Your task to perform on an android device: Add "asus rog" to the cart on ebay.com, then select checkout. Image 0: 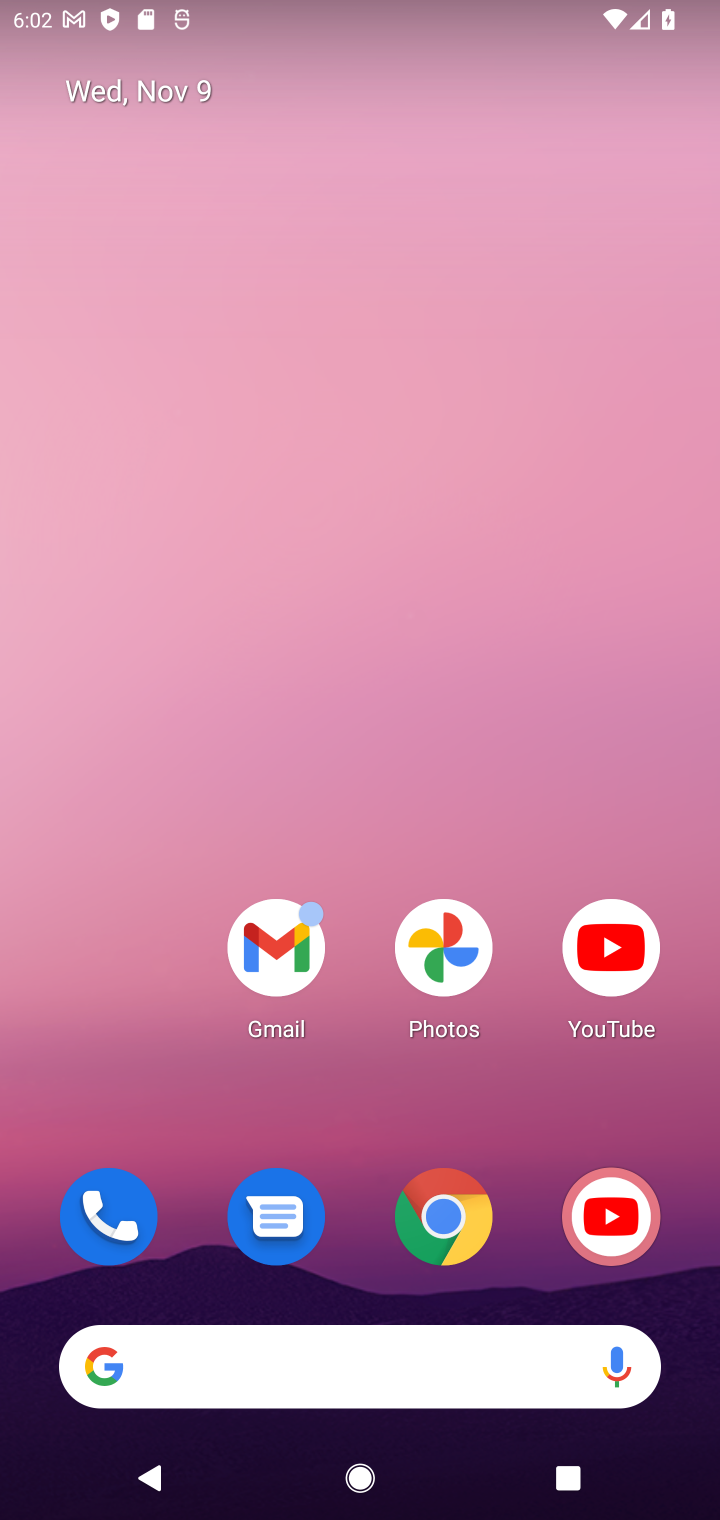
Step 0: drag from (357, 1119) to (319, 232)
Your task to perform on an android device: Add "asus rog" to the cart on ebay.com, then select checkout. Image 1: 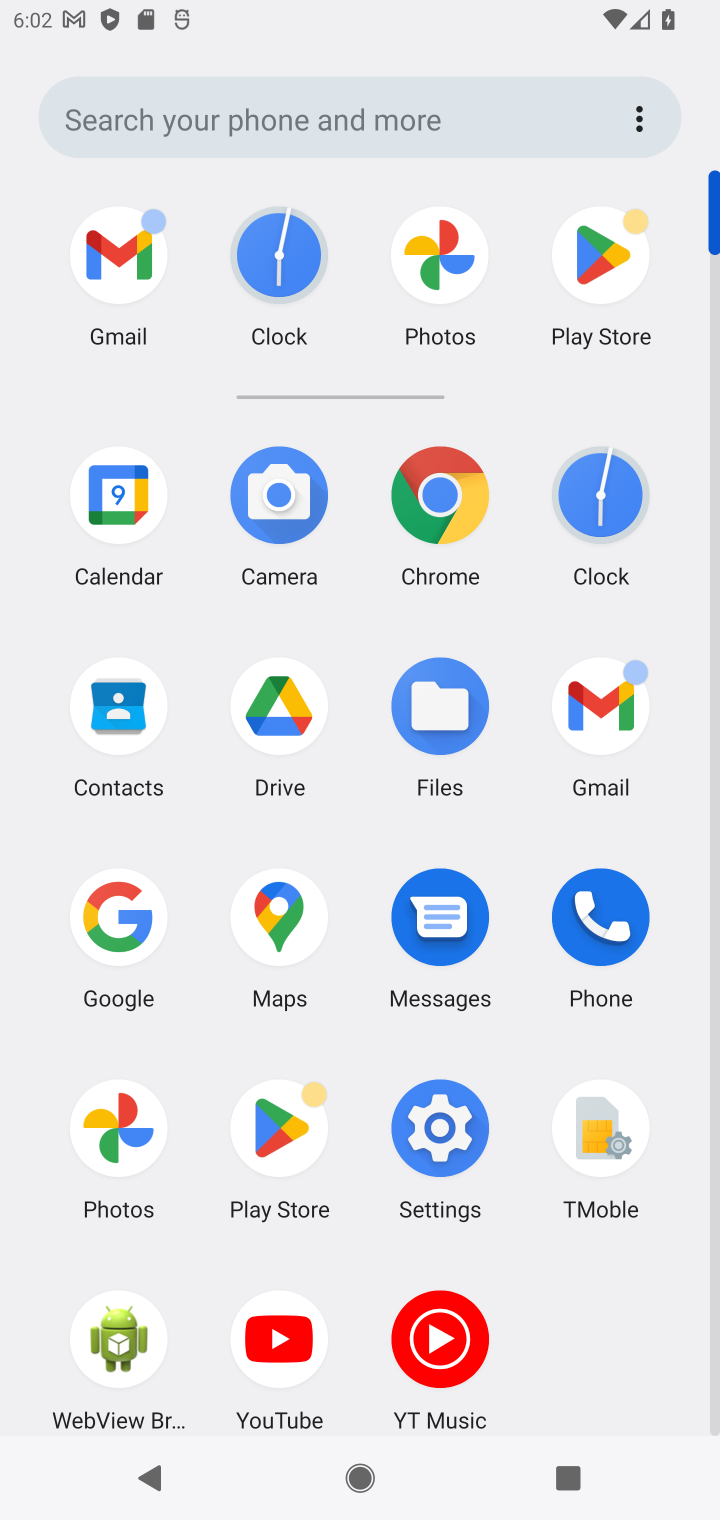
Step 1: click (429, 500)
Your task to perform on an android device: Add "asus rog" to the cart on ebay.com, then select checkout. Image 2: 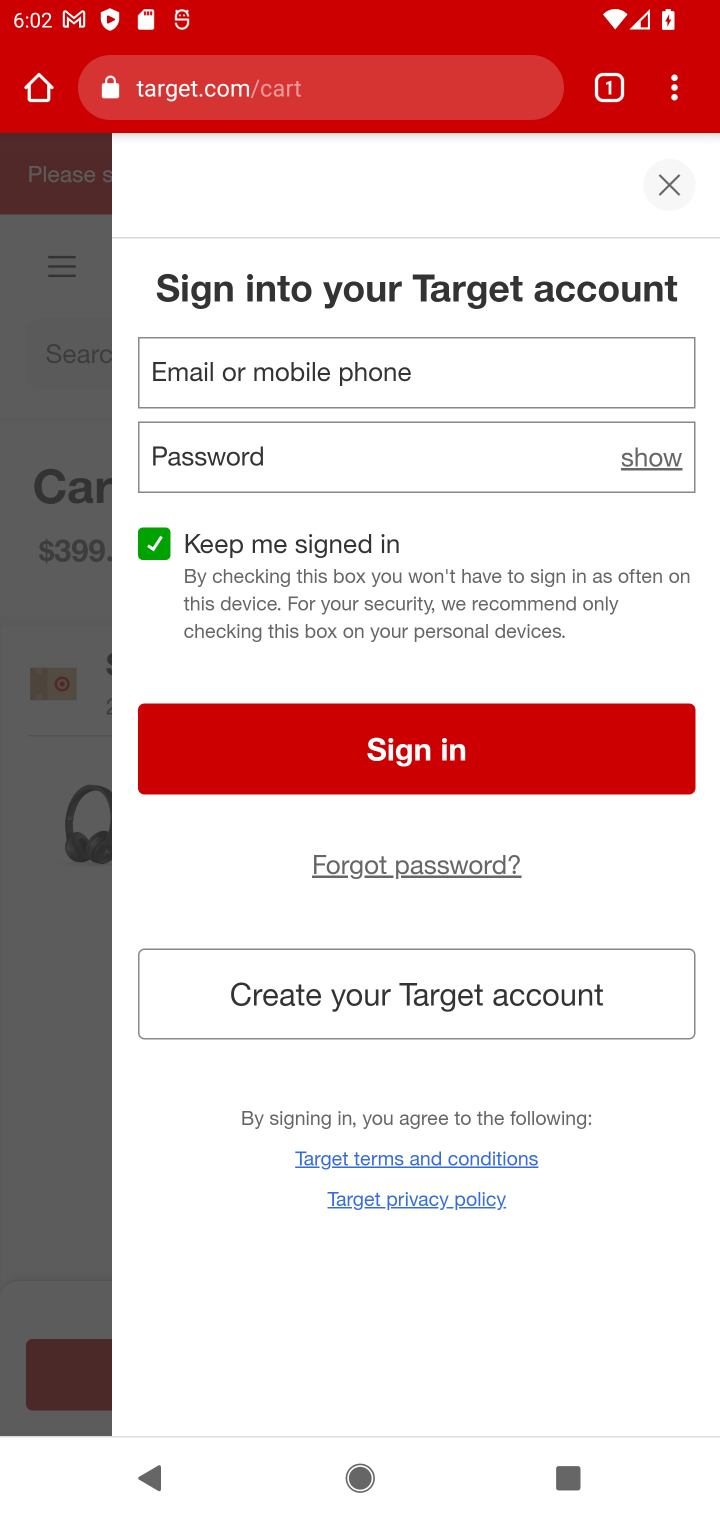
Step 2: click (358, 103)
Your task to perform on an android device: Add "asus rog" to the cart on ebay.com, then select checkout. Image 3: 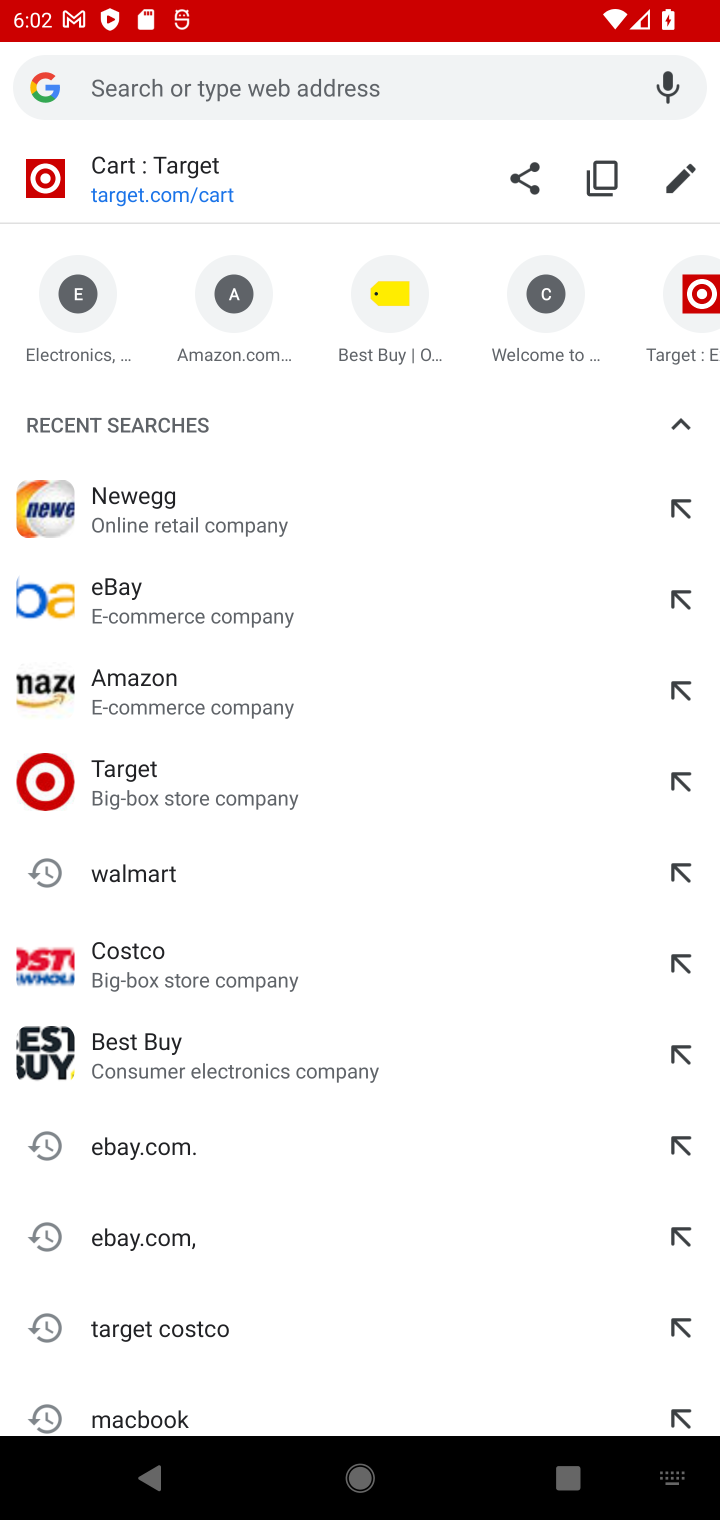
Step 3: type "ebay.com"
Your task to perform on an android device: Add "asus rog" to the cart on ebay.com, then select checkout. Image 4: 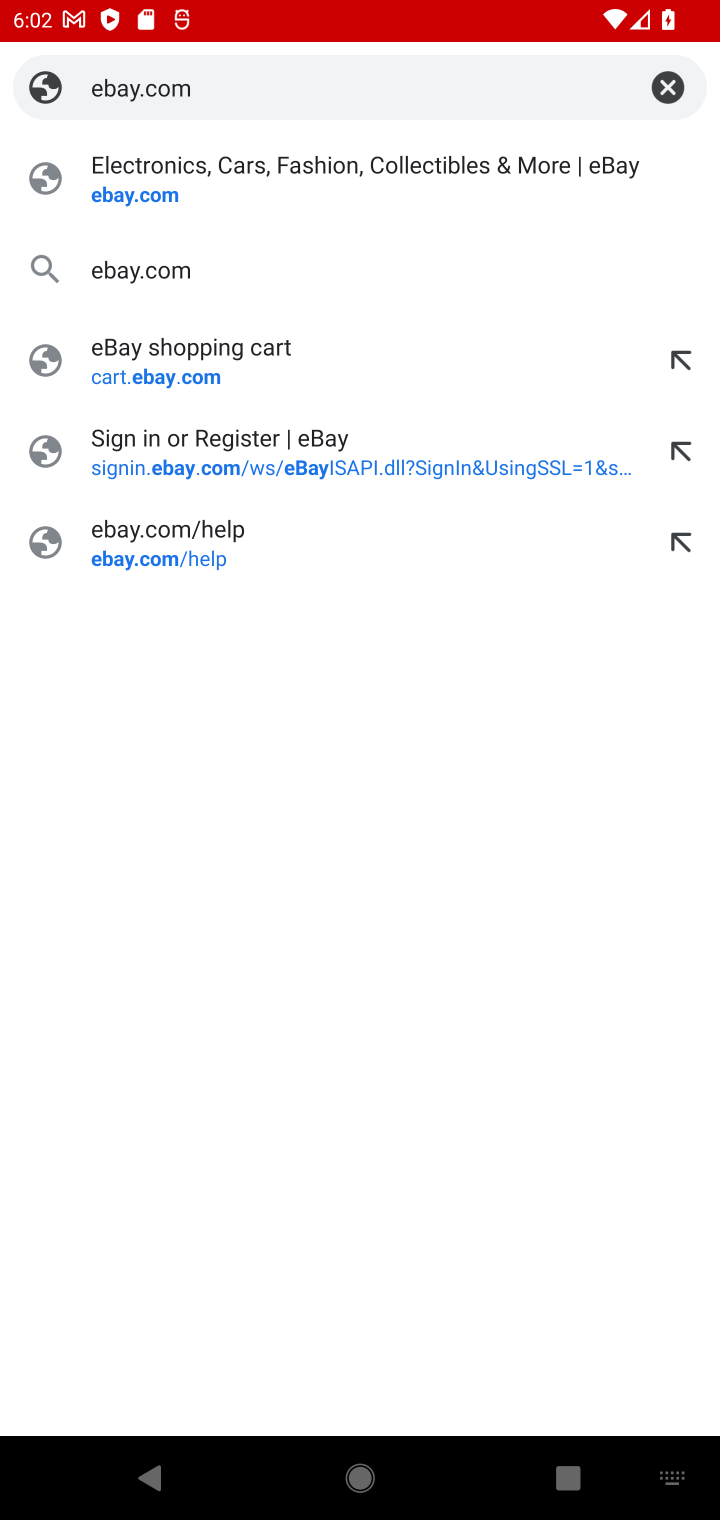
Step 4: press enter
Your task to perform on an android device: Add "asus rog" to the cart on ebay.com, then select checkout. Image 5: 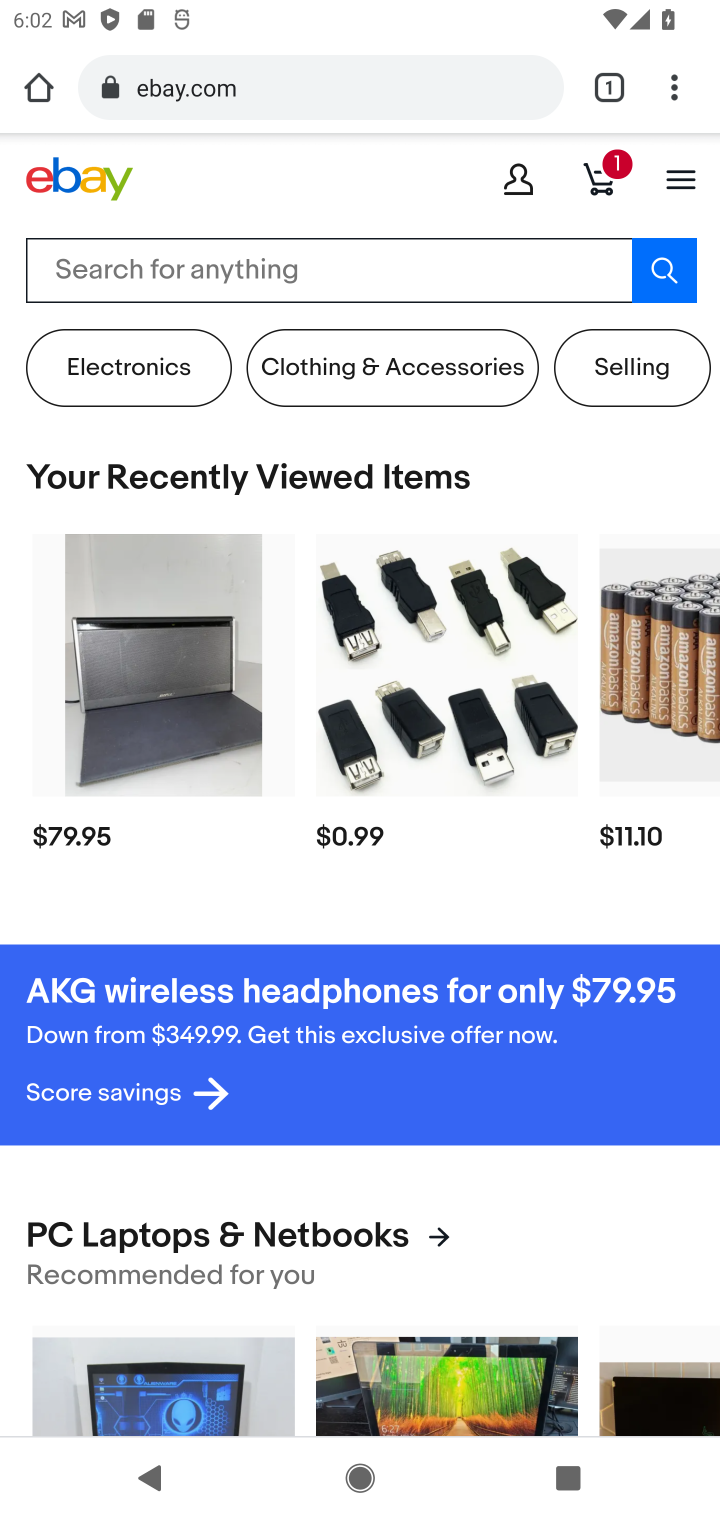
Step 5: click (372, 265)
Your task to perform on an android device: Add "asus rog" to the cart on ebay.com, then select checkout. Image 6: 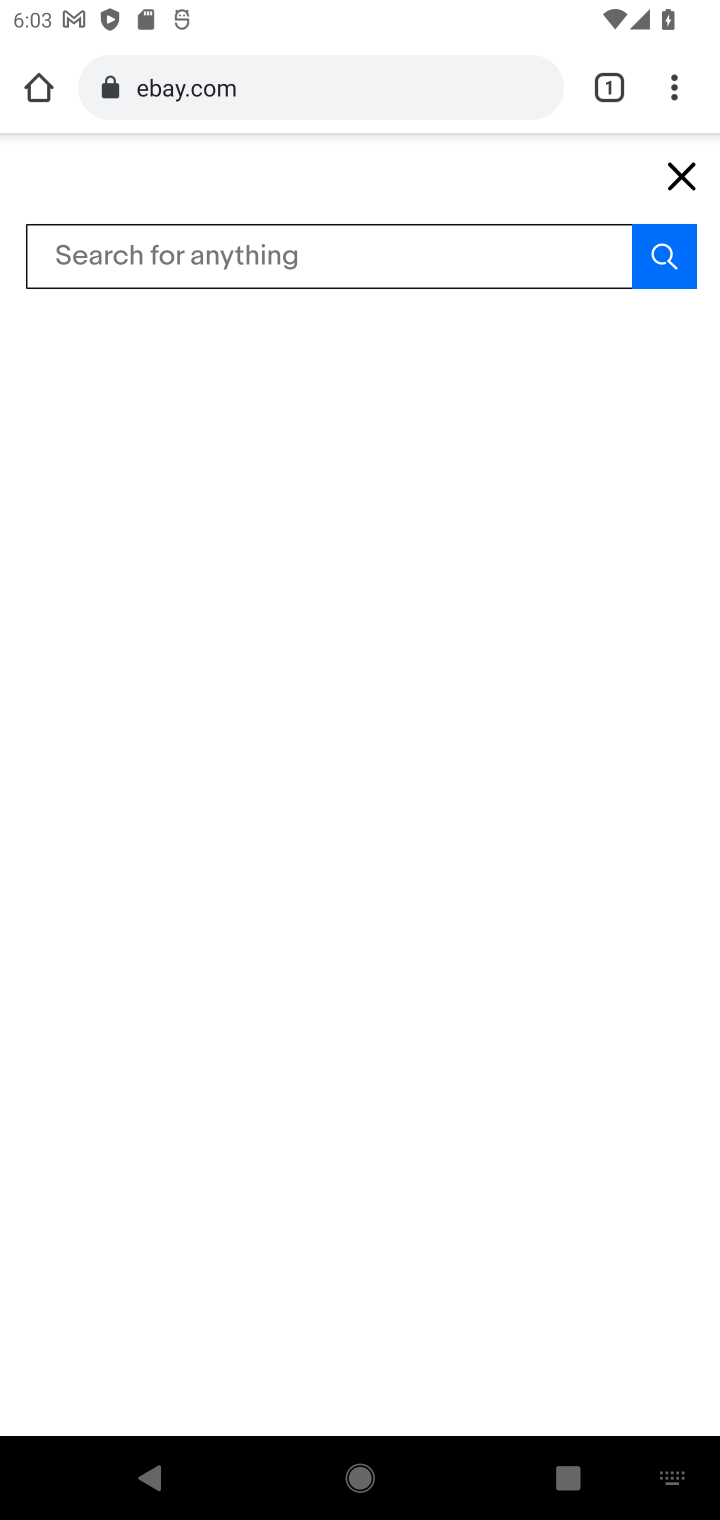
Step 6: type "asus rog"
Your task to perform on an android device: Add "asus rog" to the cart on ebay.com, then select checkout. Image 7: 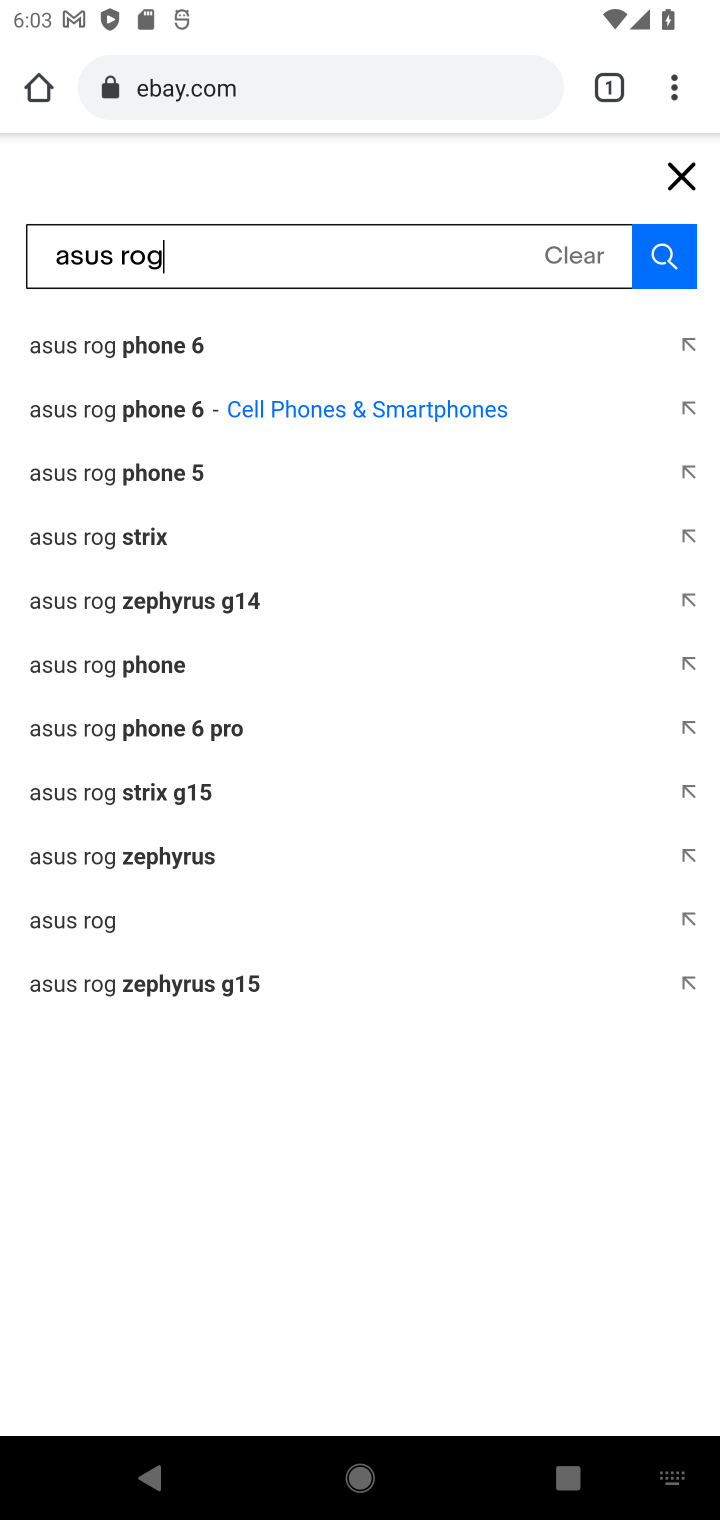
Step 7: press enter
Your task to perform on an android device: Add "asus rog" to the cart on ebay.com, then select checkout. Image 8: 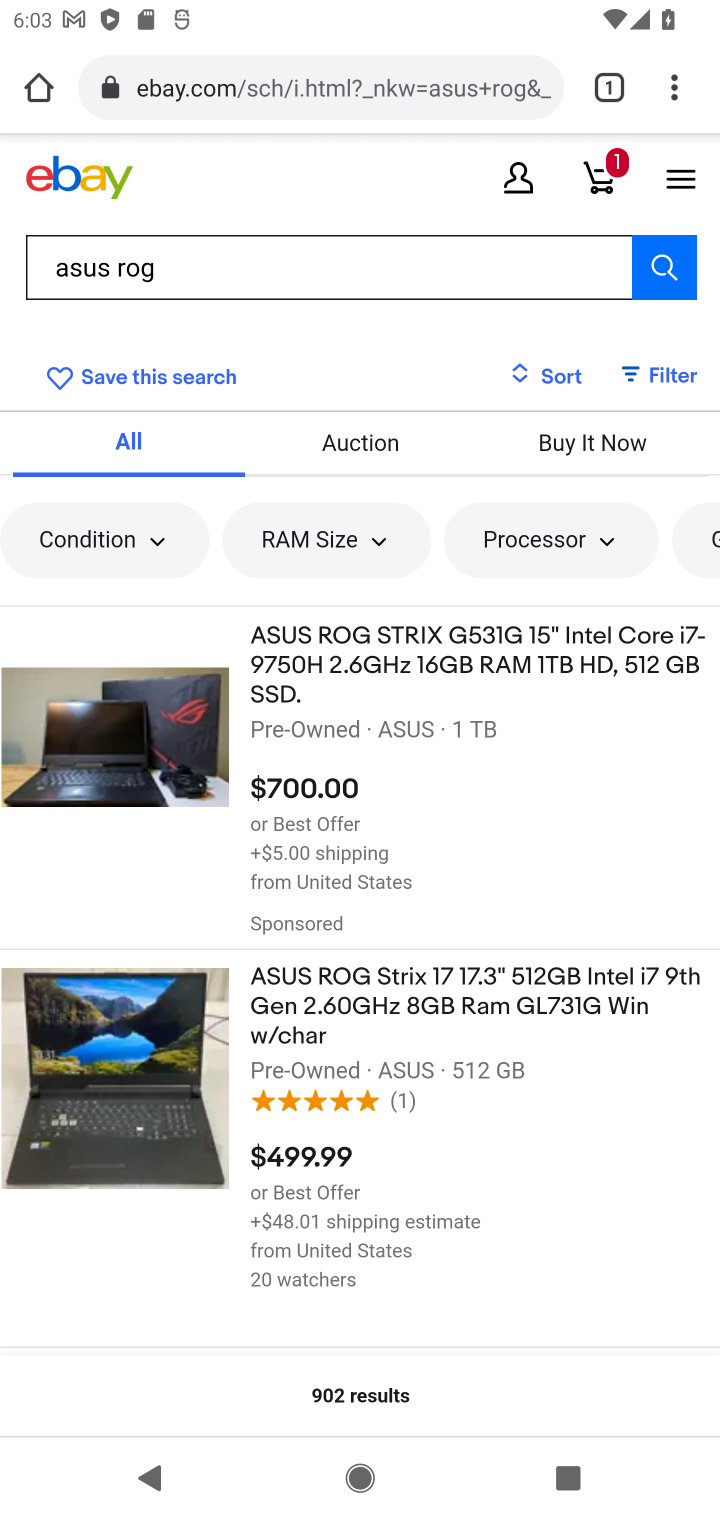
Step 8: click (194, 693)
Your task to perform on an android device: Add "asus rog" to the cart on ebay.com, then select checkout. Image 9: 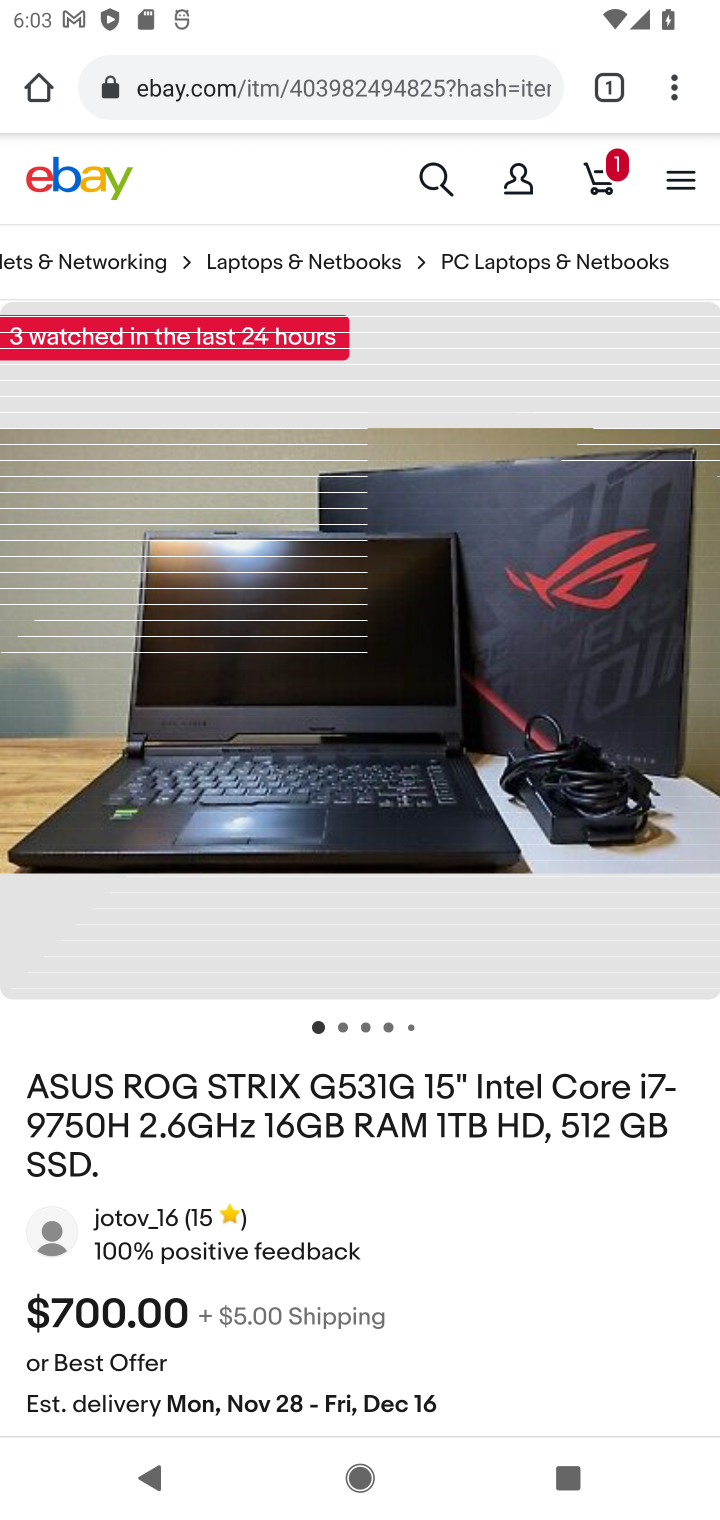
Step 9: drag from (382, 971) to (443, 413)
Your task to perform on an android device: Add "asus rog" to the cart on ebay.com, then select checkout. Image 10: 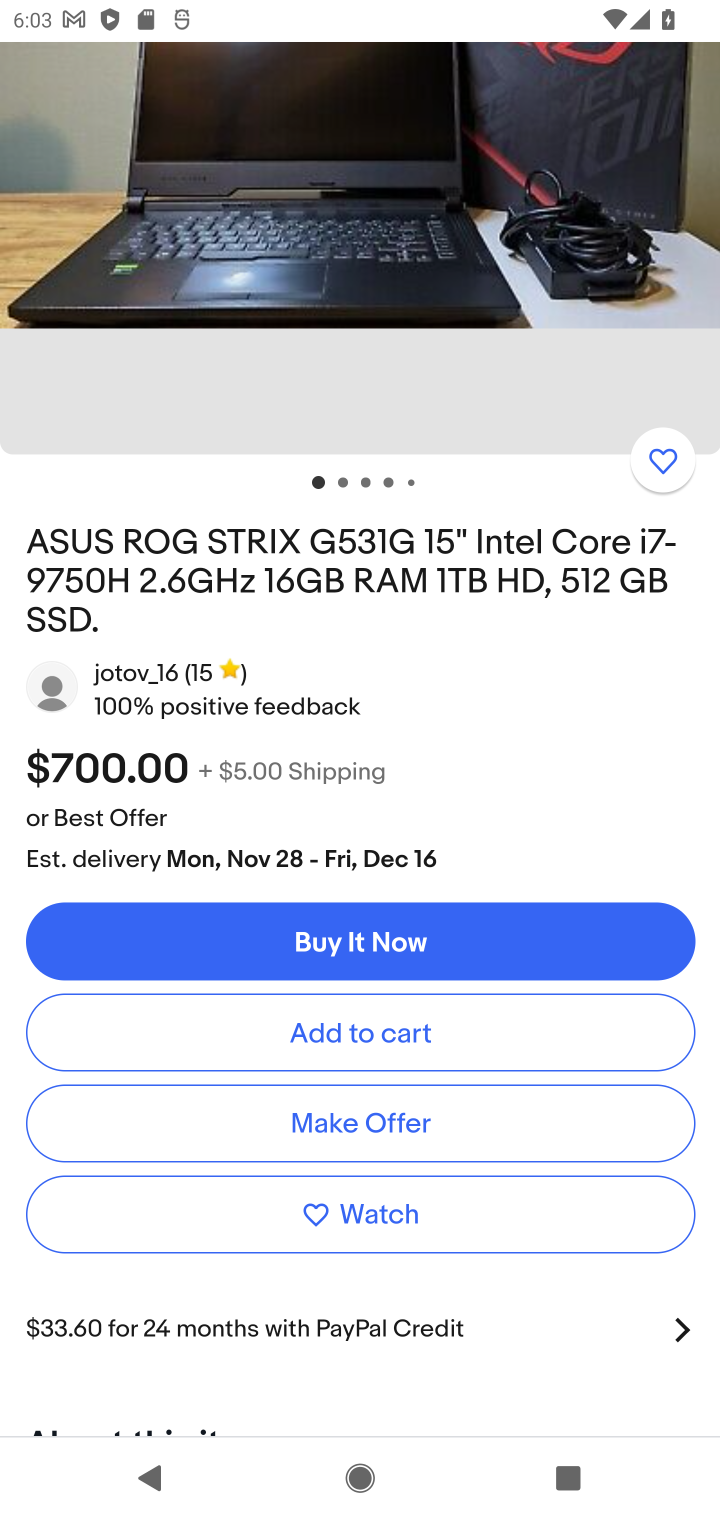
Step 10: click (494, 1025)
Your task to perform on an android device: Add "asus rog" to the cart on ebay.com, then select checkout. Image 11: 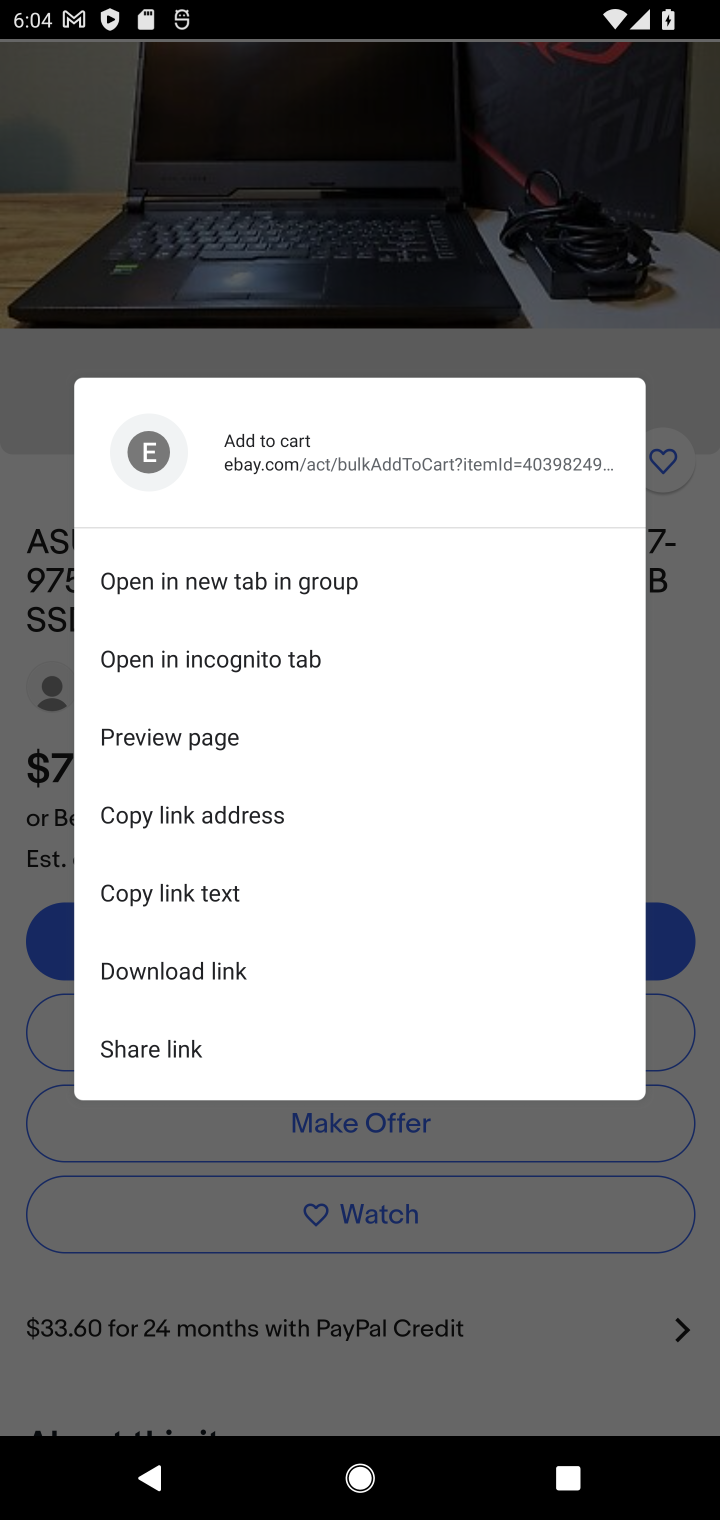
Step 11: click (475, 1152)
Your task to perform on an android device: Add "asus rog" to the cart on ebay.com, then select checkout. Image 12: 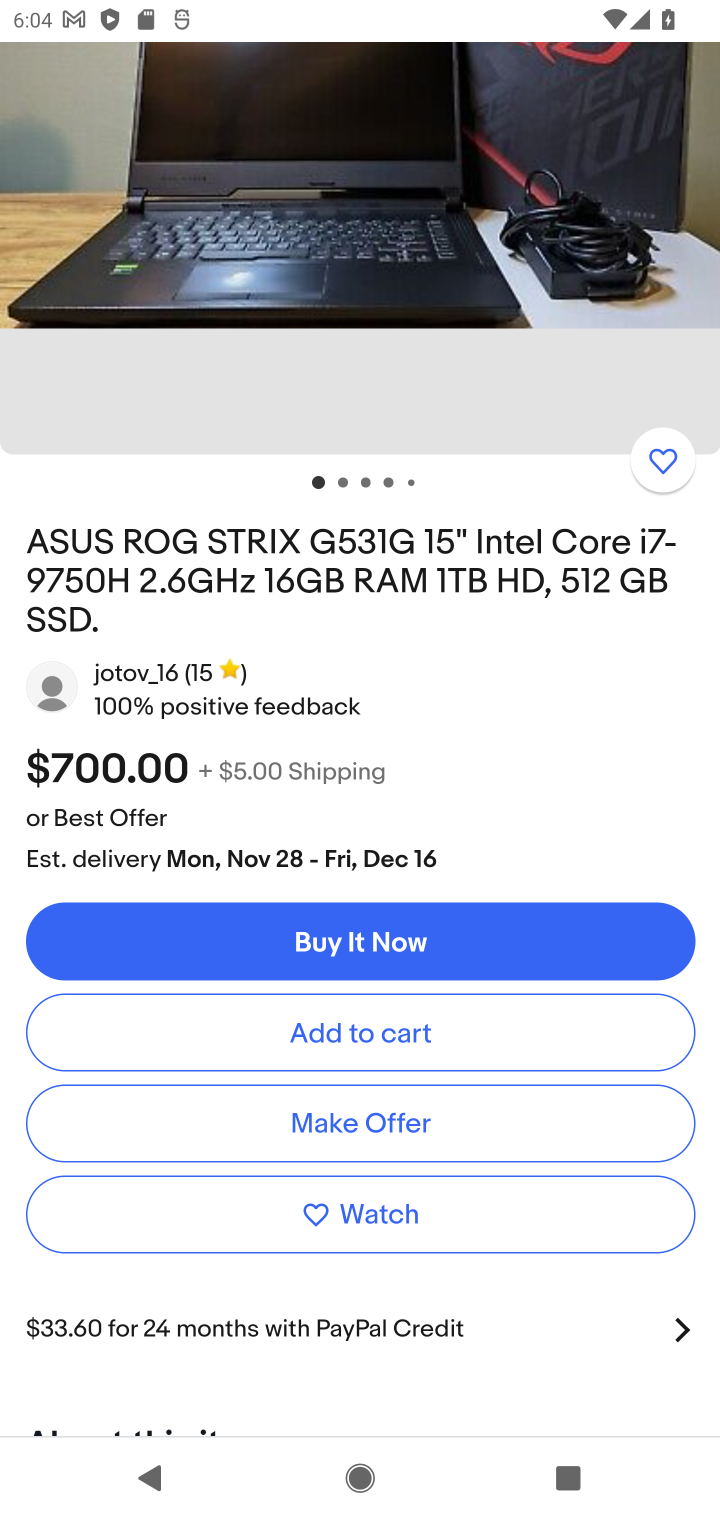
Step 12: click (472, 1031)
Your task to perform on an android device: Add "asus rog" to the cart on ebay.com, then select checkout. Image 13: 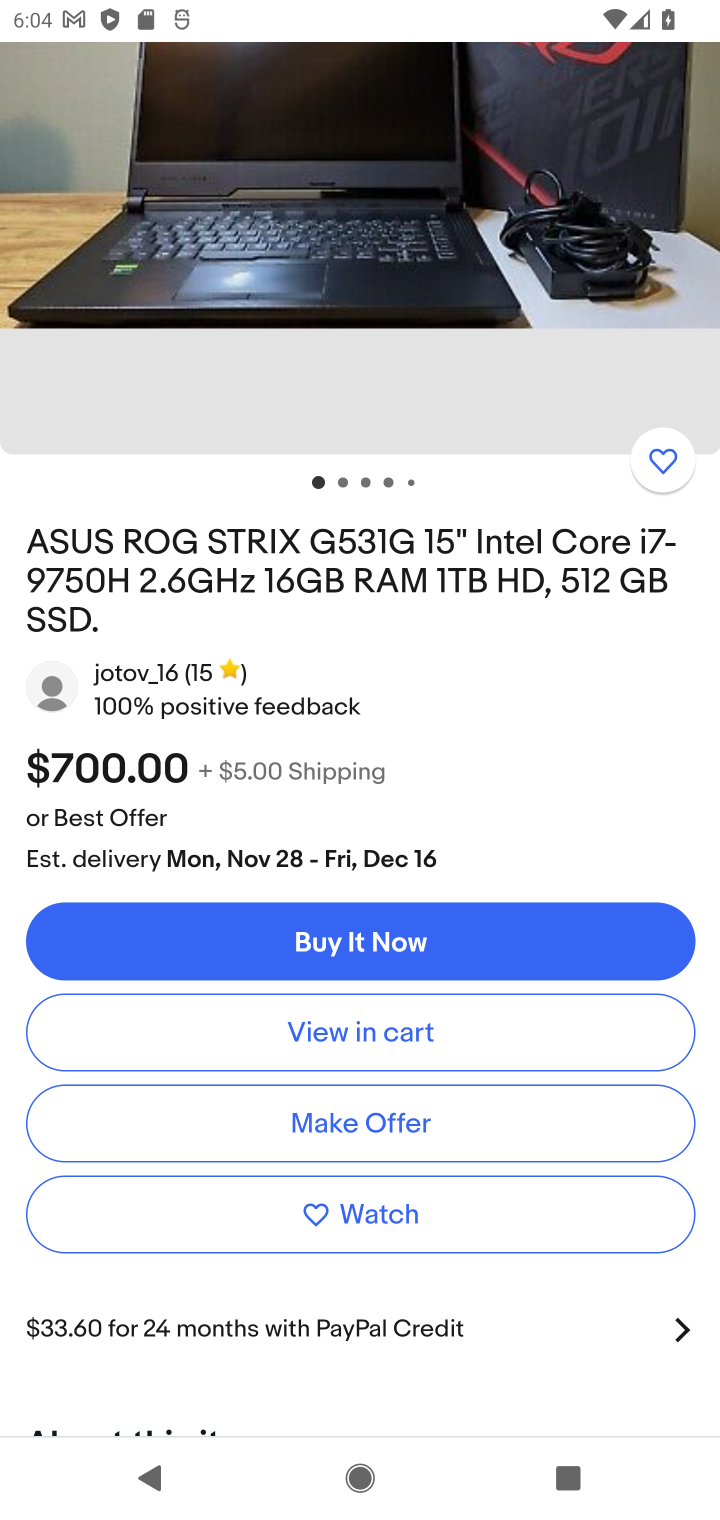
Step 13: task complete